Your task to perform on an android device: Play the last video I watched on Youtube Image 0: 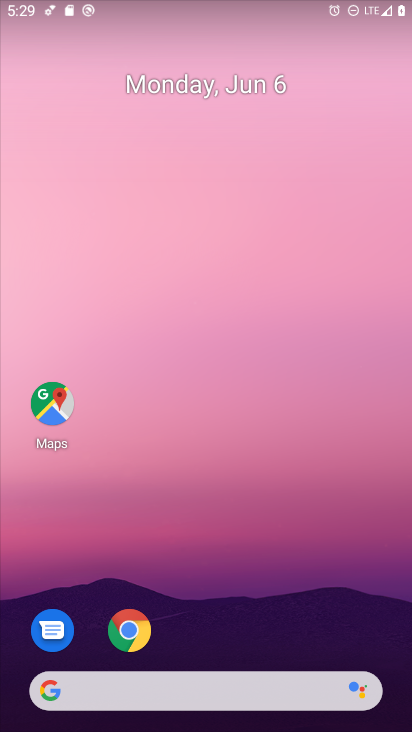
Step 0: drag from (226, 393) to (151, 3)
Your task to perform on an android device: Play the last video I watched on Youtube Image 1: 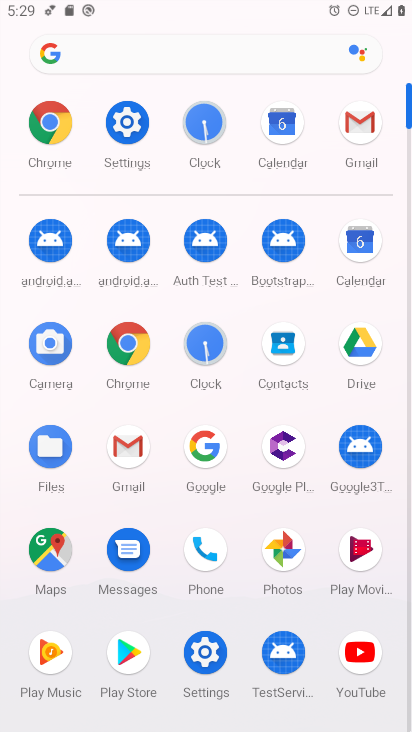
Step 1: click (362, 661)
Your task to perform on an android device: Play the last video I watched on Youtube Image 2: 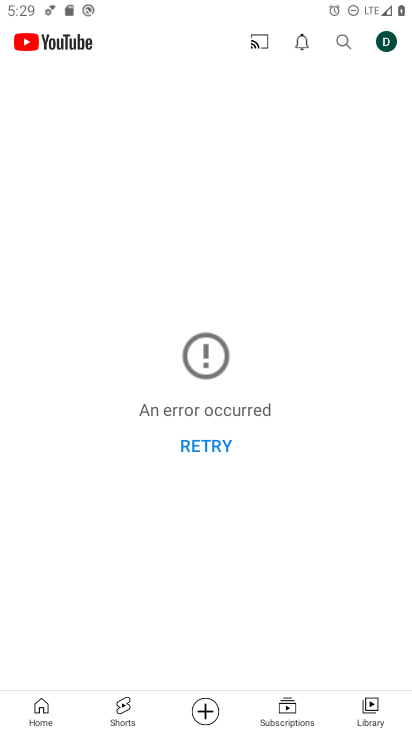
Step 2: click (371, 693)
Your task to perform on an android device: Play the last video I watched on Youtube Image 3: 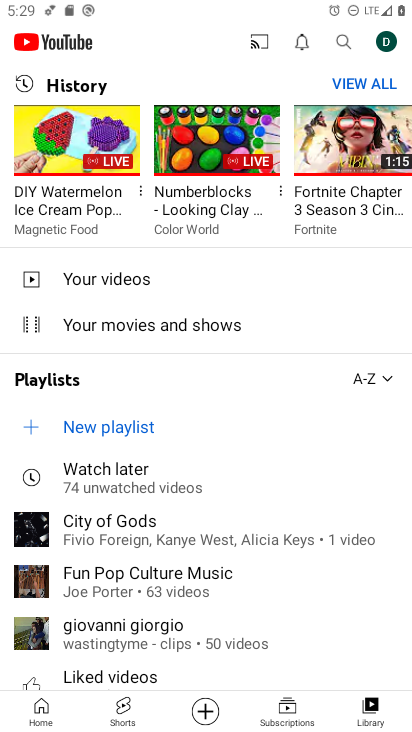
Step 3: click (77, 152)
Your task to perform on an android device: Play the last video I watched on Youtube Image 4: 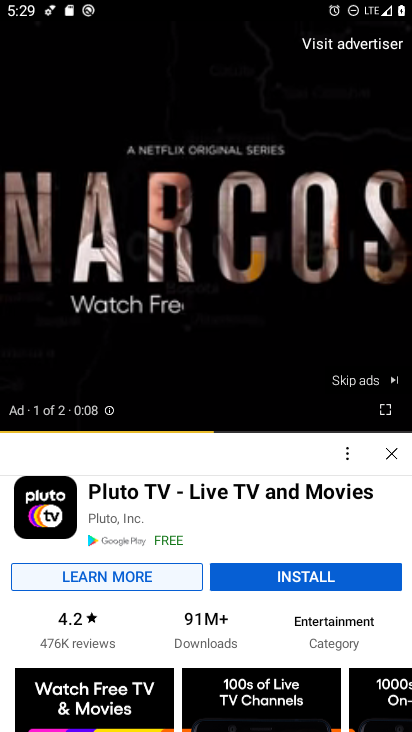
Step 4: click (344, 375)
Your task to perform on an android device: Play the last video I watched on Youtube Image 5: 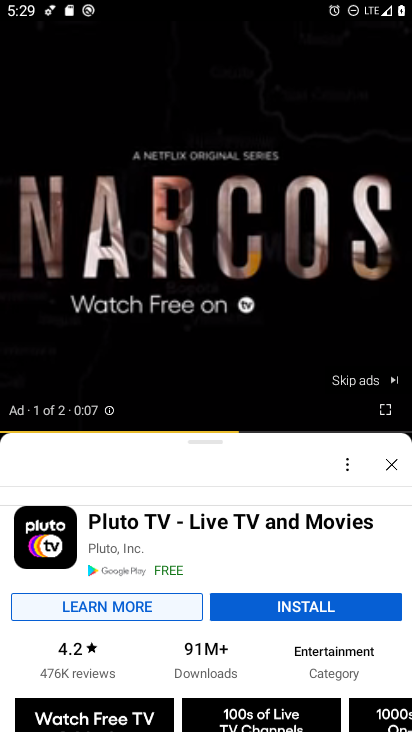
Step 5: click (208, 219)
Your task to perform on an android device: Play the last video I watched on Youtube Image 6: 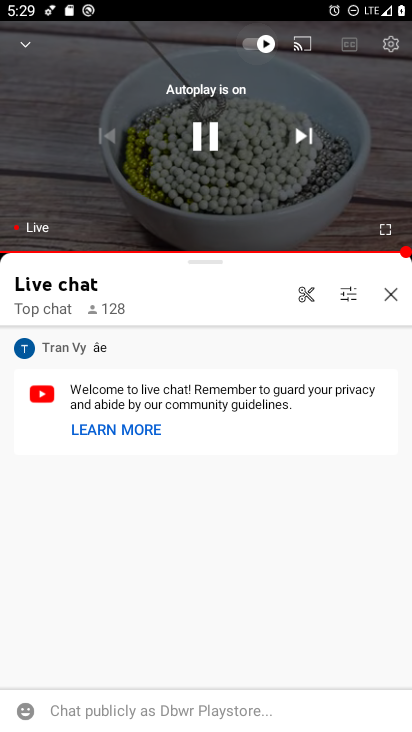
Step 6: click (211, 157)
Your task to perform on an android device: Play the last video I watched on Youtube Image 7: 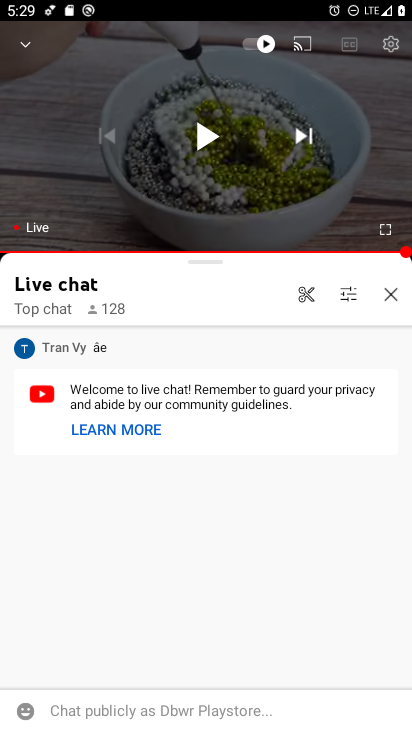
Step 7: task complete